Your task to perform on an android device: toggle notifications settings in the gmail app Image 0: 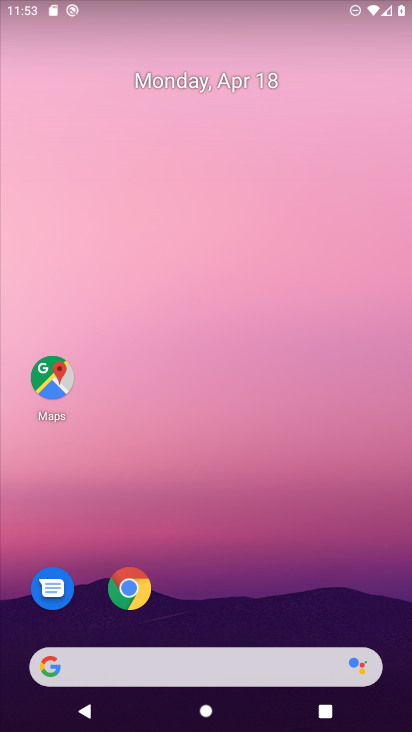
Step 0: drag from (277, 335) to (216, 2)
Your task to perform on an android device: toggle notifications settings in the gmail app Image 1: 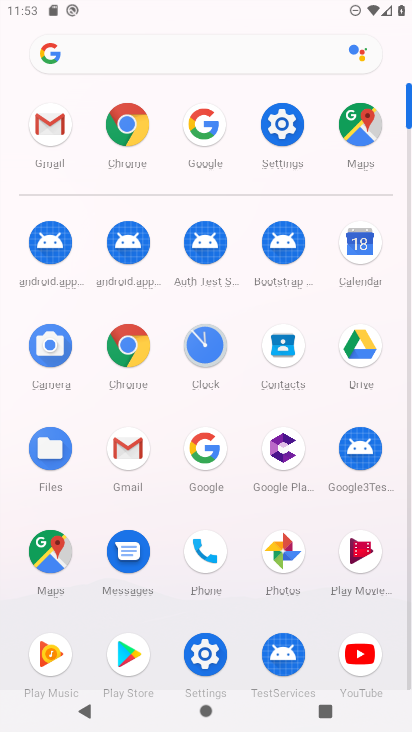
Step 1: drag from (16, 459) to (6, 232)
Your task to perform on an android device: toggle notifications settings in the gmail app Image 2: 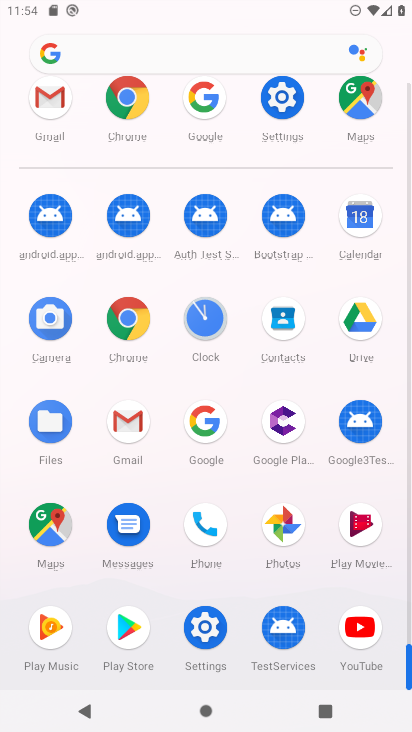
Step 2: drag from (14, 517) to (3, 329)
Your task to perform on an android device: toggle notifications settings in the gmail app Image 3: 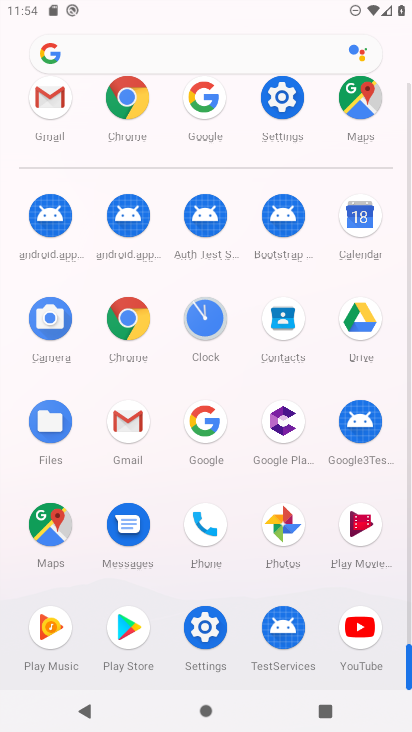
Step 3: click (122, 418)
Your task to perform on an android device: toggle notifications settings in the gmail app Image 4: 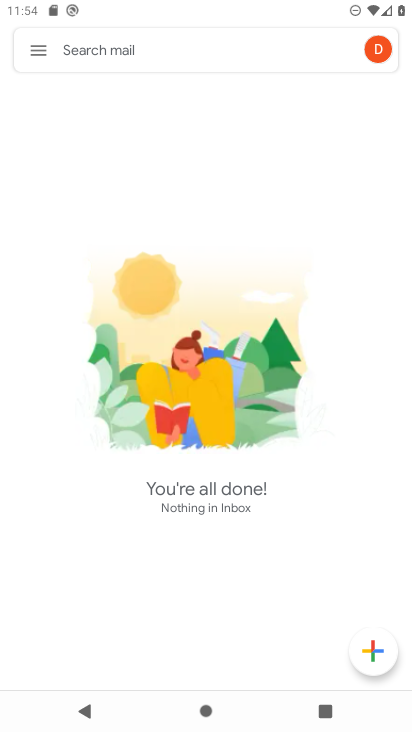
Step 4: click (39, 52)
Your task to perform on an android device: toggle notifications settings in the gmail app Image 5: 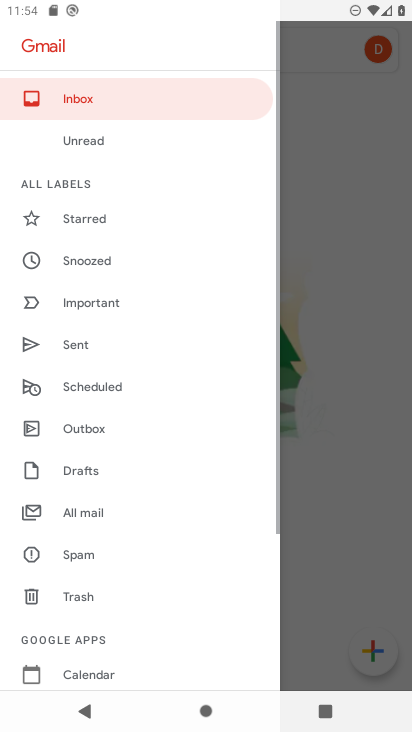
Step 5: drag from (118, 436) to (121, 114)
Your task to perform on an android device: toggle notifications settings in the gmail app Image 6: 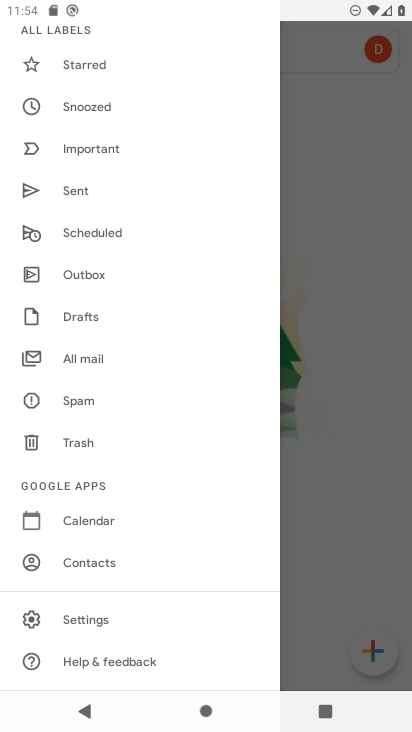
Step 6: click (98, 614)
Your task to perform on an android device: toggle notifications settings in the gmail app Image 7: 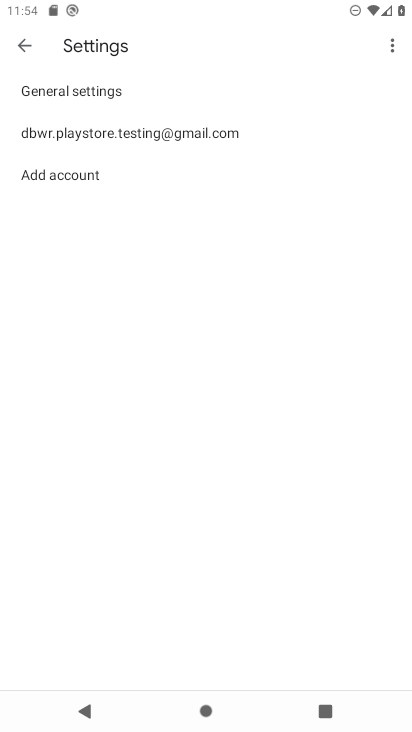
Step 7: click (131, 128)
Your task to perform on an android device: toggle notifications settings in the gmail app Image 8: 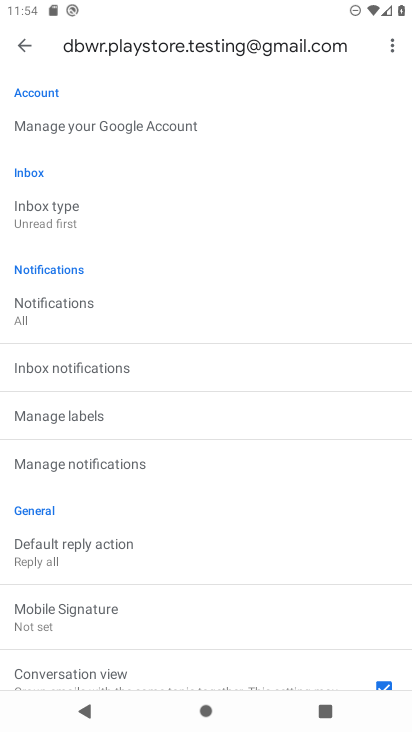
Step 8: drag from (195, 365) to (225, 159)
Your task to perform on an android device: toggle notifications settings in the gmail app Image 9: 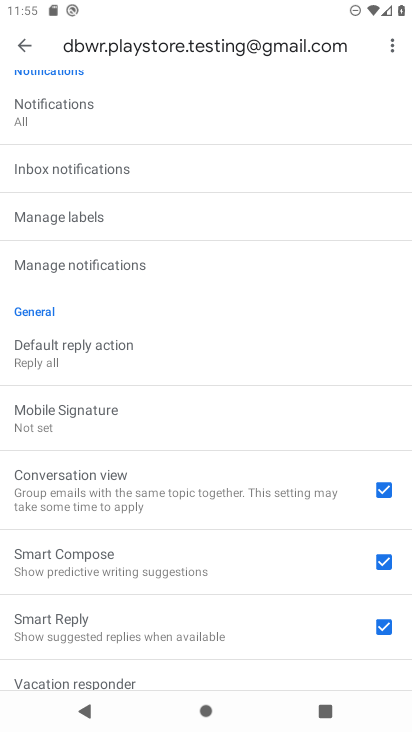
Step 9: drag from (225, 159) to (210, 336)
Your task to perform on an android device: toggle notifications settings in the gmail app Image 10: 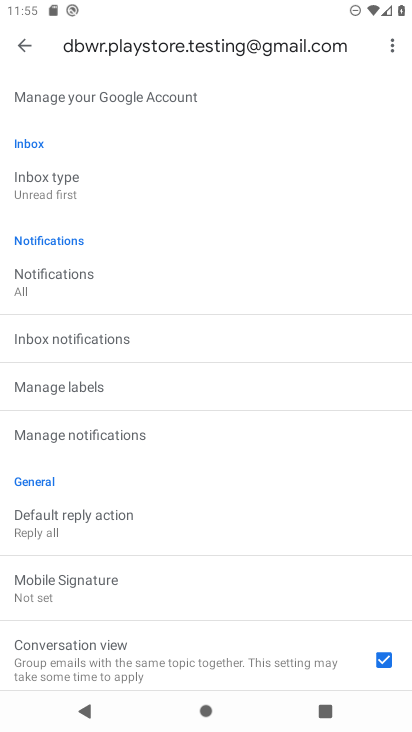
Step 10: click (96, 425)
Your task to perform on an android device: toggle notifications settings in the gmail app Image 11: 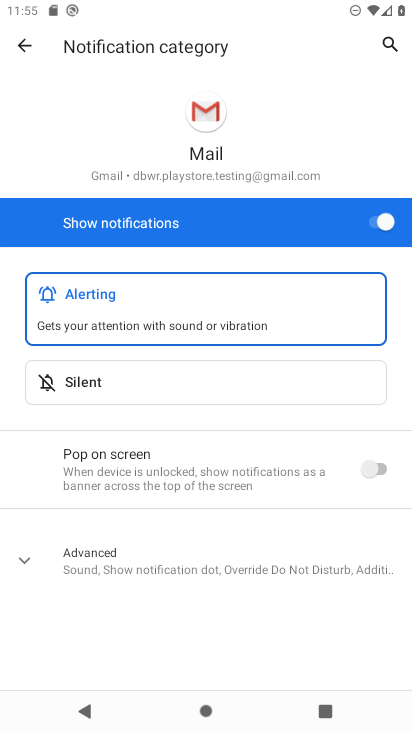
Step 11: drag from (201, 516) to (187, 234)
Your task to perform on an android device: toggle notifications settings in the gmail app Image 12: 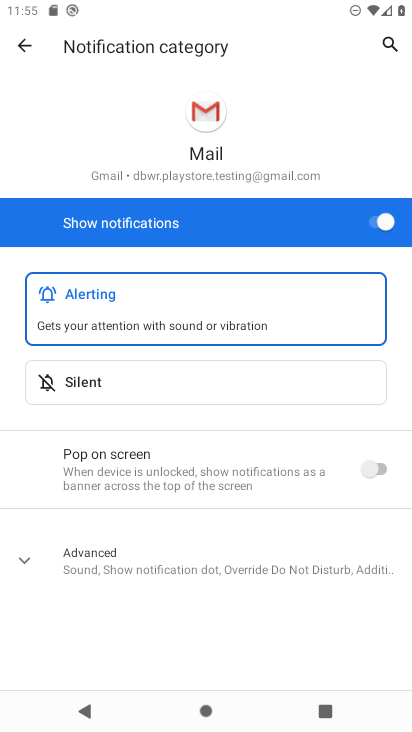
Step 12: click (377, 218)
Your task to perform on an android device: toggle notifications settings in the gmail app Image 13: 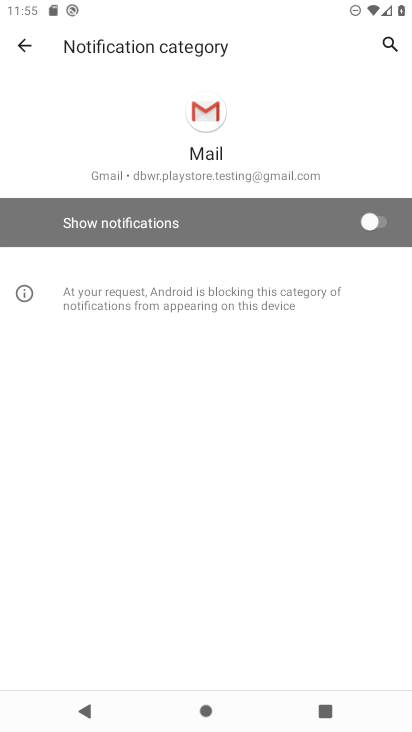
Step 13: task complete